Your task to perform on an android device: Search for pizza restaurants on Maps Image 0: 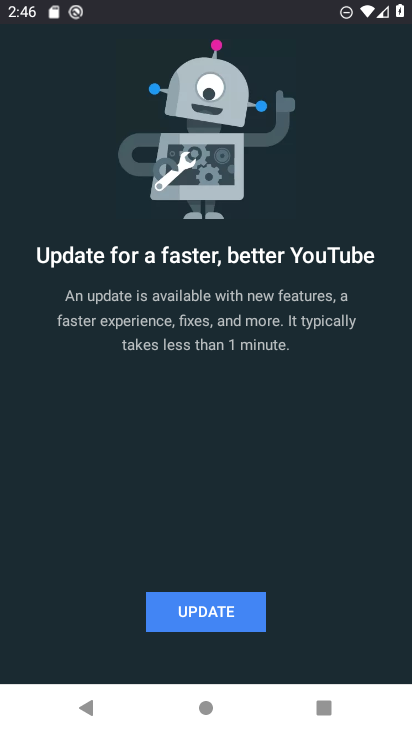
Step 0: press back button
Your task to perform on an android device: Search for pizza restaurants on Maps Image 1: 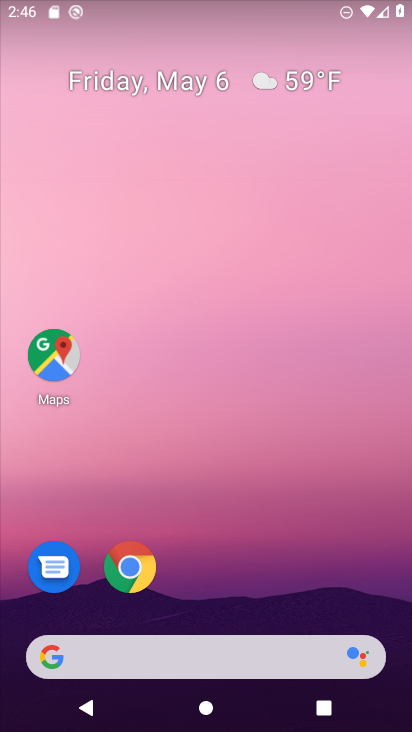
Step 1: click (60, 367)
Your task to perform on an android device: Search for pizza restaurants on Maps Image 2: 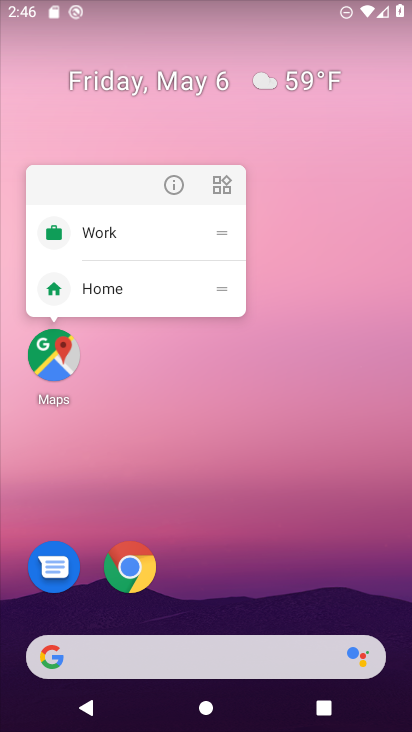
Step 2: click (59, 368)
Your task to perform on an android device: Search for pizza restaurants on Maps Image 3: 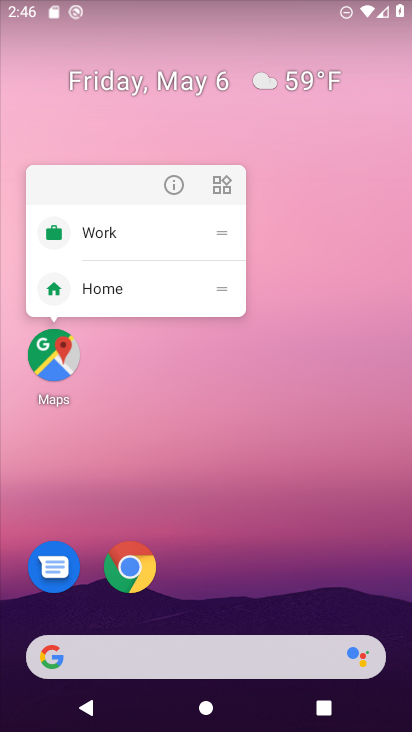
Step 3: click (61, 370)
Your task to perform on an android device: Search for pizza restaurants on Maps Image 4: 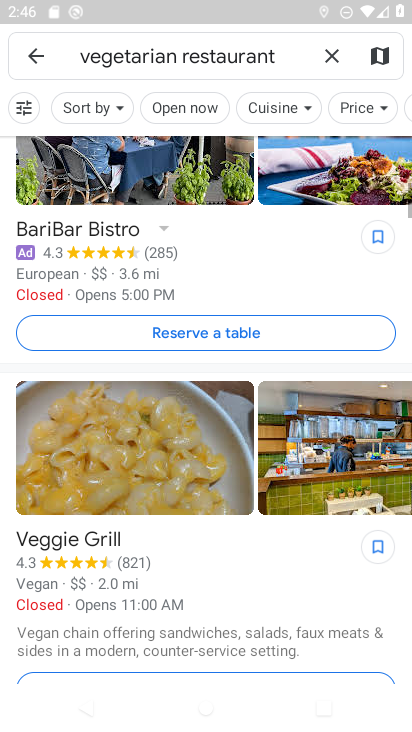
Step 4: click (322, 49)
Your task to perform on an android device: Search for pizza restaurants on Maps Image 5: 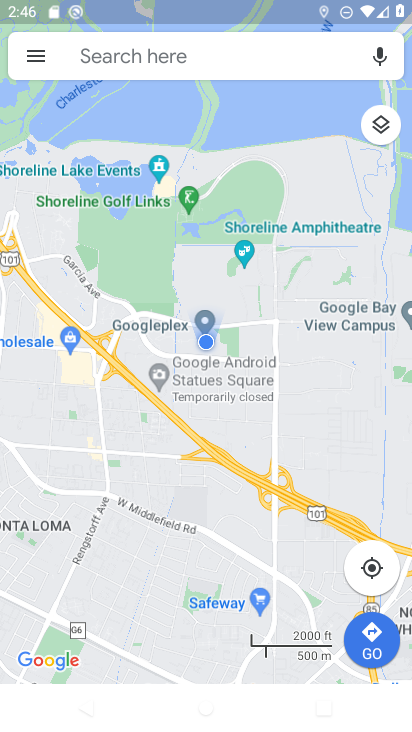
Step 5: click (254, 61)
Your task to perform on an android device: Search for pizza restaurants on Maps Image 6: 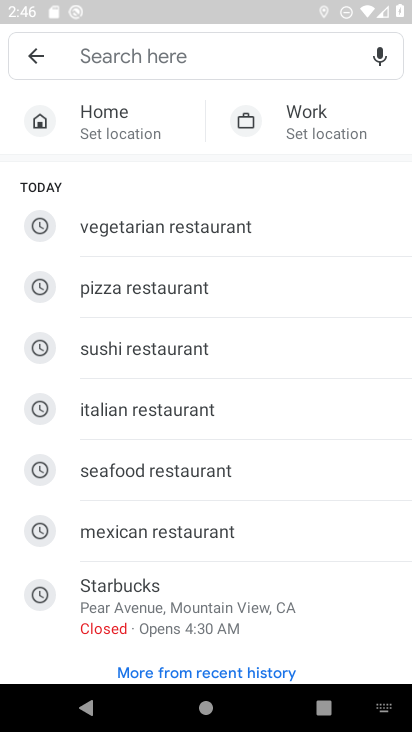
Step 6: type "Pizza restaurants"
Your task to perform on an android device: Search for pizza restaurants on Maps Image 7: 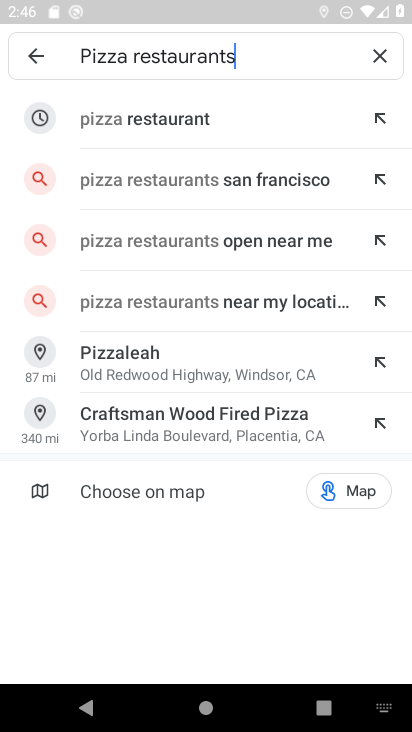
Step 7: click (216, 138)
Your task to perform on an android device: Search for pizza restaurants on Maps Image 8: 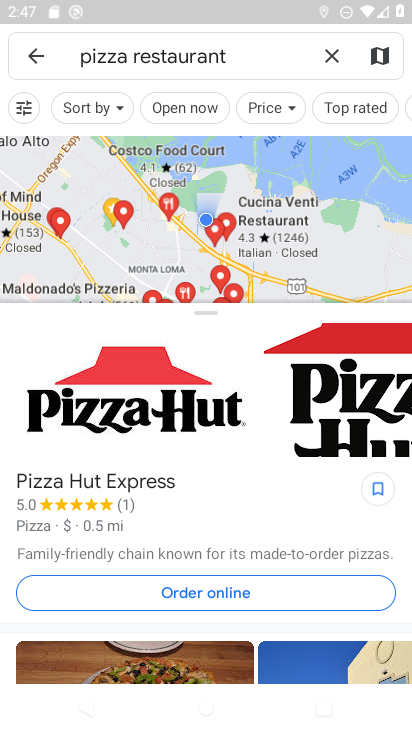
Step 8: task complete